Your task to perform on an android device: Add "panasonic triple a" to the cart on bestbuy, then select checkout. Image 0: 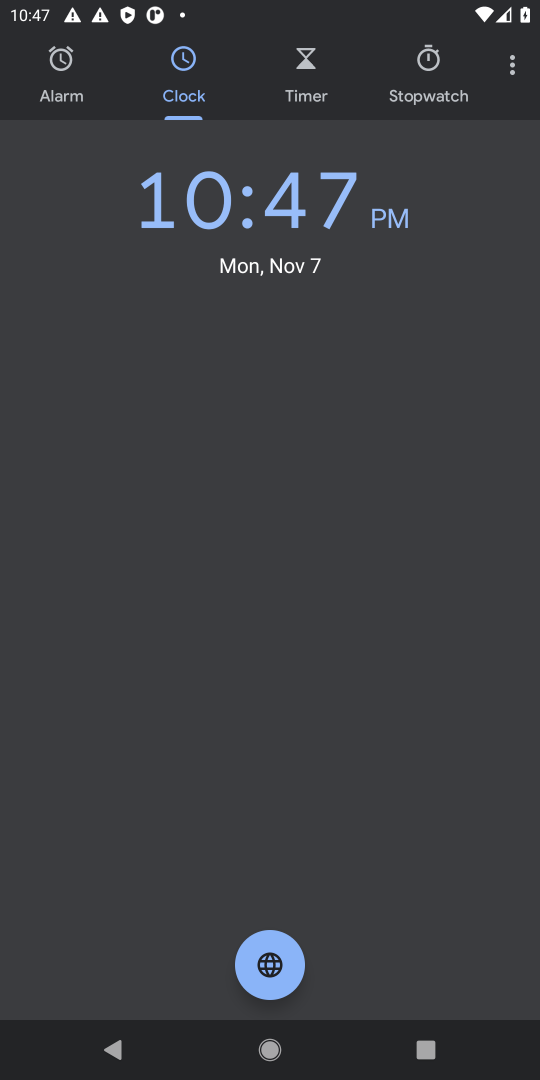
Step 0: press home button
Your task to perform on an android device: Add "panasonic triple a" to the cart on bestbuy, then select checkout. Image 1: 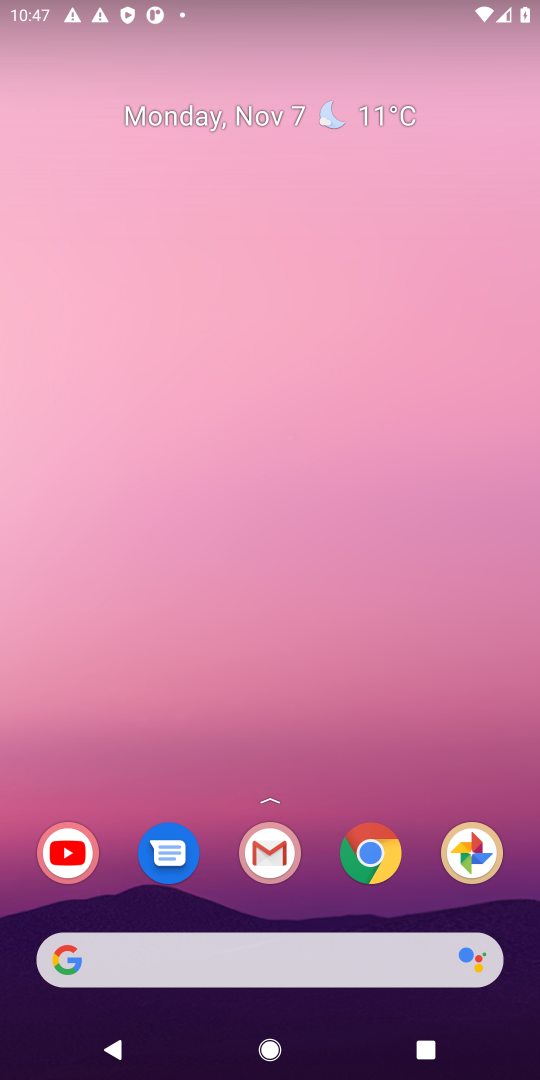
Step 1: click (326, 943)
Your task to perform on an android device: Add "panasonic triple a" to the cart on bestbuy, then select checkout. Image 2: 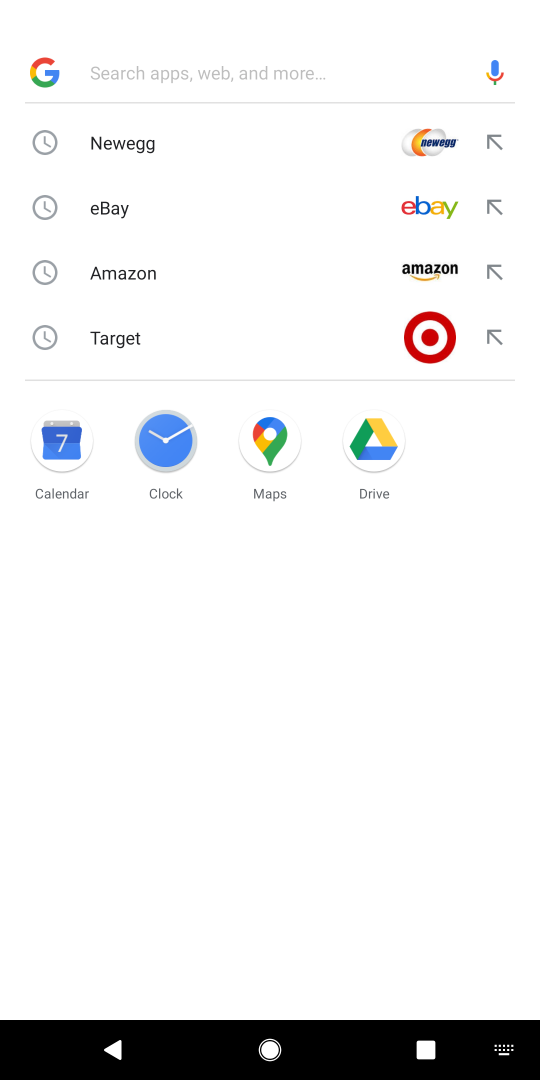
Step 2: type "bestbuy"
Your task to perform on an android device: Add "panasonic triple a" to the cart on bestbuy, then select checkout. Image 3: 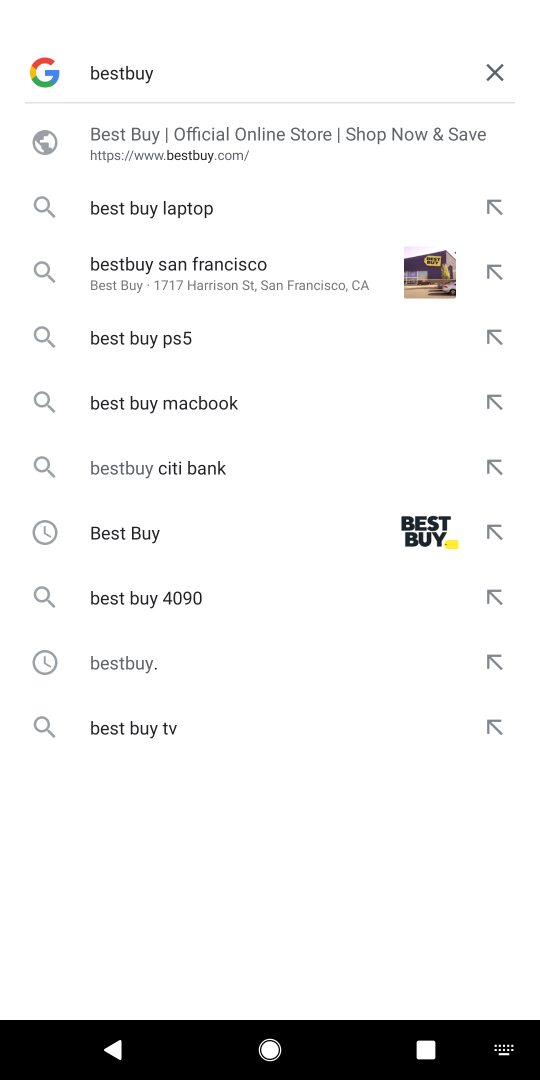
Step 3: click (155, 218)
Your task to perform on an android device: Add "panasonic triple a" to the cart on bestbuy, then select checkout. Image 4: 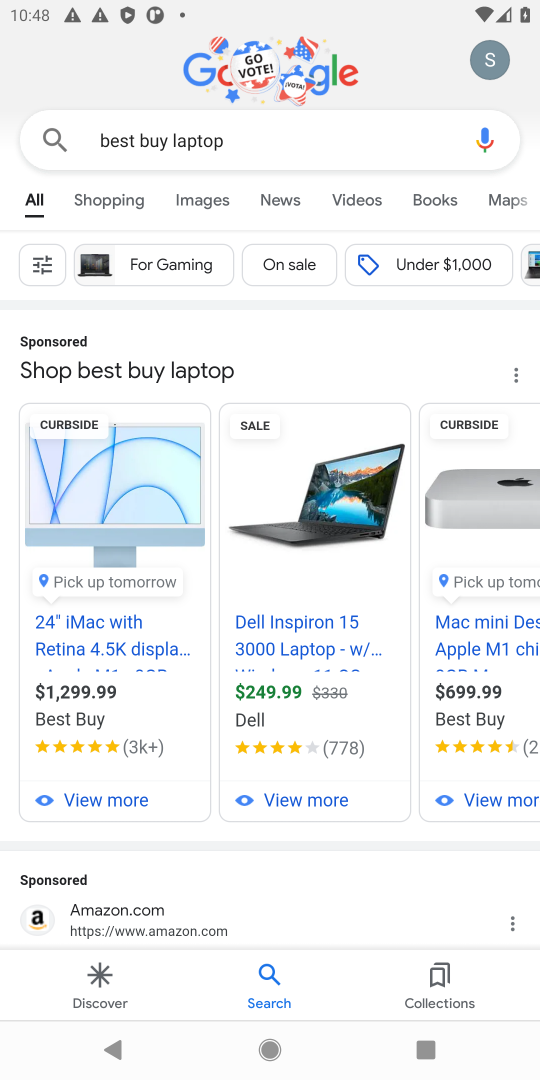
Step 4: task complete